Your task to perform on an android device: open a new tab in the chrome app Image 0: 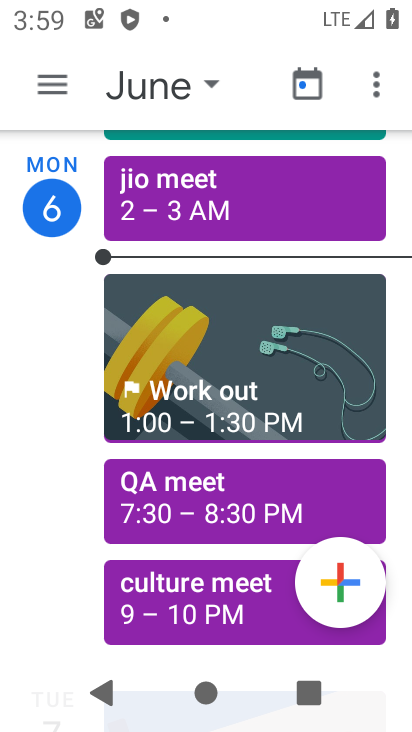
Step 0: press home button
Your task to perform on an android device: open a new tab in the chrome app Image 1: 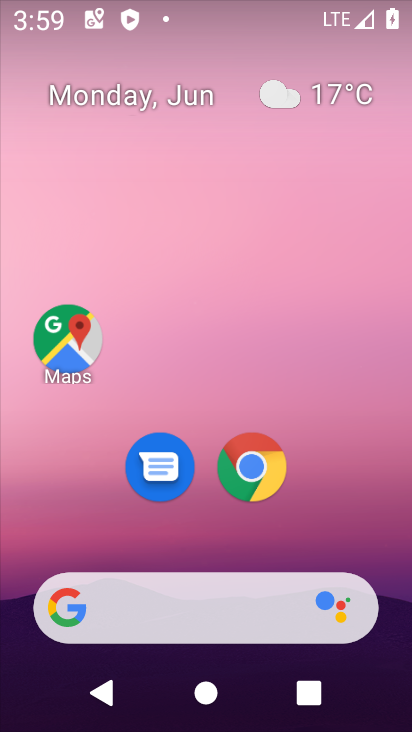
Step 1: click (269, 473)
Your task to perform on an android device: open a new tab in the chrome app Image 2: 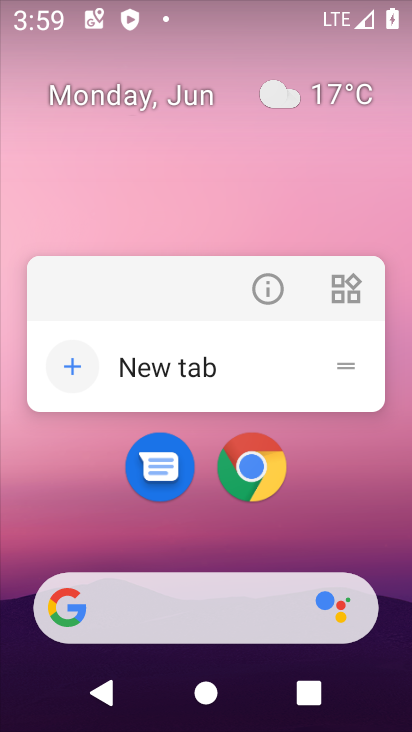
Step 2: click (269, 472)
Your task to perform on an android device: open a new tab in the chrome app Image 3: 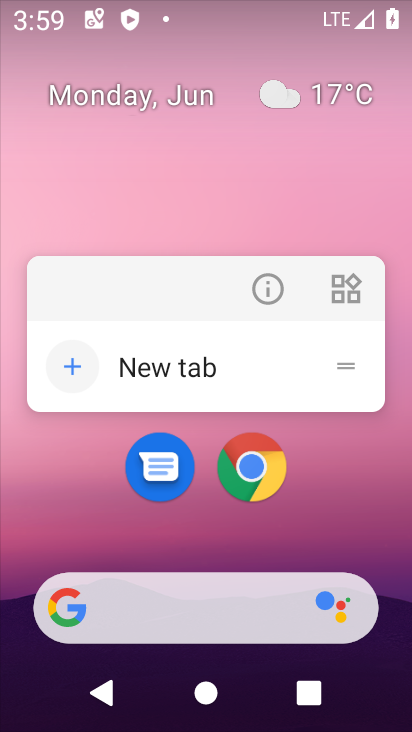
Step 3: click (253, 480)
Your task to perform on an android device: open a new tab in the chrome app Image 4: 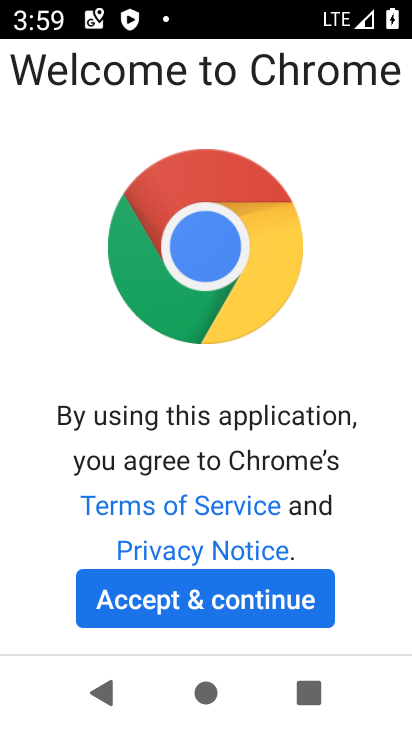
Step 4: click (266, 599)
Your task to perform on an android device: open a new tab in the chrome app Image 5: 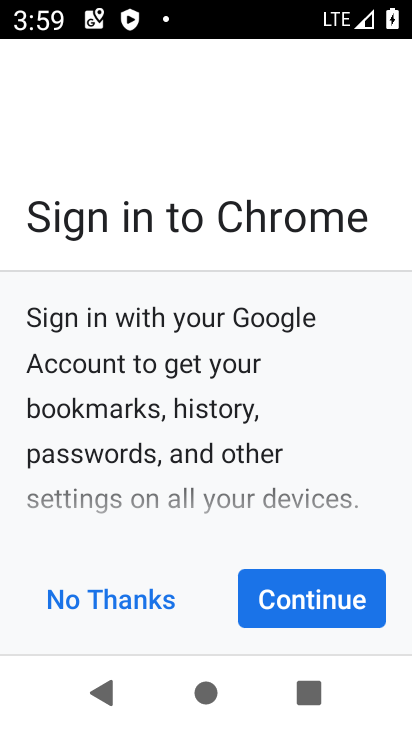
Step 5: click (305, 600)
Your task to perform on an android device: open a new tab in the chrome app Image 6: 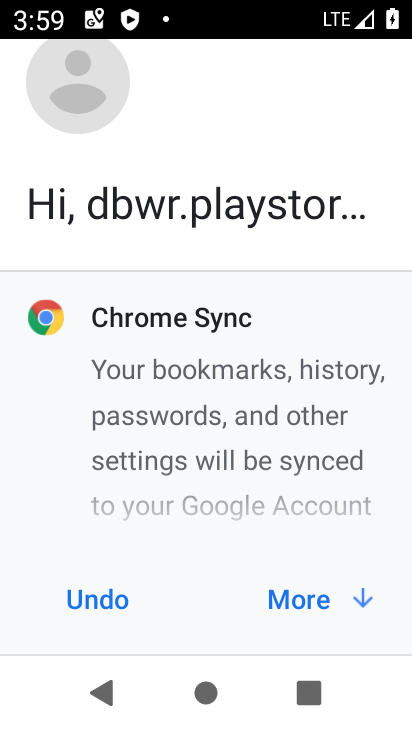
Step 6: click (305, 600)
Your task to perform on an android device: open a new tab in the chrome app Image 7: 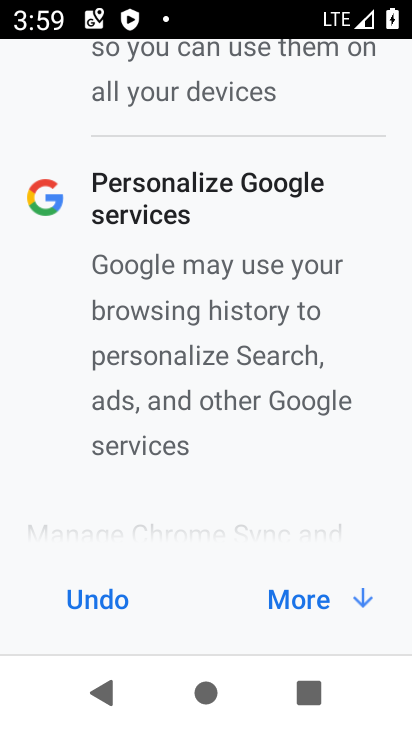
Step 7: click (305, 600)
Your task to perform on an android device: open a new tab in the chrome app Image 8: 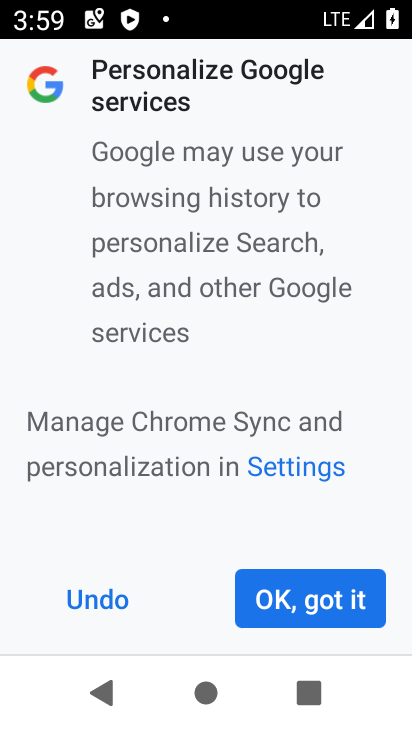
Step 8: click (305, 600)
Your task to perform on an android device: open a new tab in the chrome app Image 9: 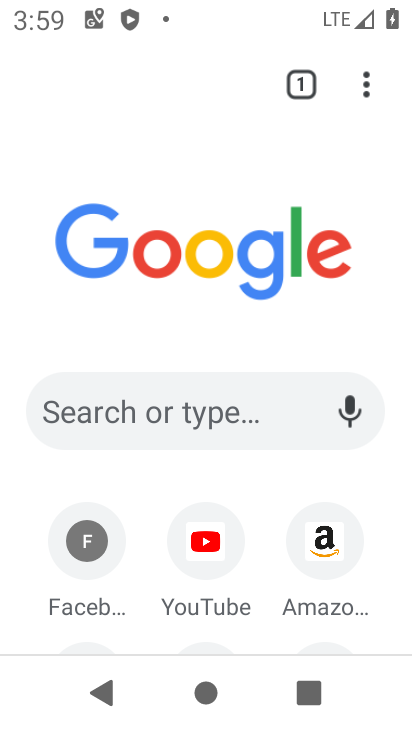
Step 9: click (371, 93)
Your task to perform on an android device: open a new tab in the chrome app Image 10: 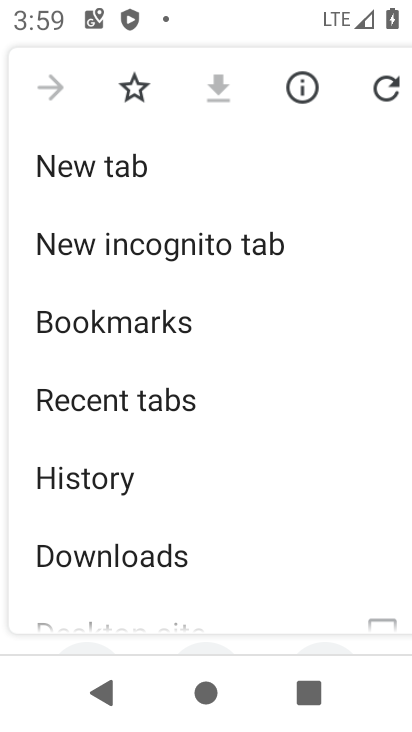
Step 10: click (84, 155)
Your task to perform on an android device: open a new tab in the chrome app Image 11: 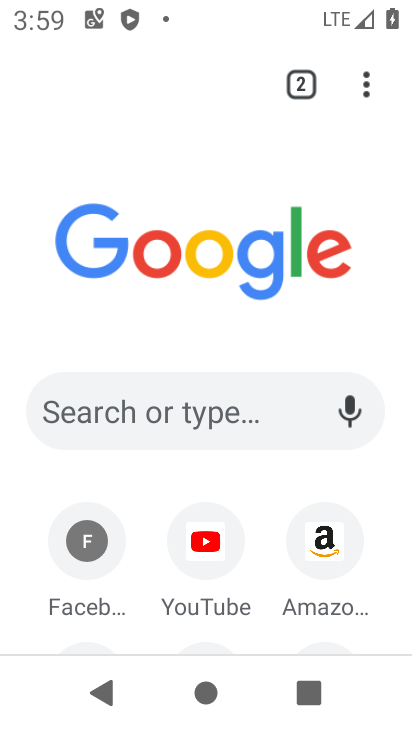
Step 11: task complete